Your task to perform on an android device: check data usage Image 0: 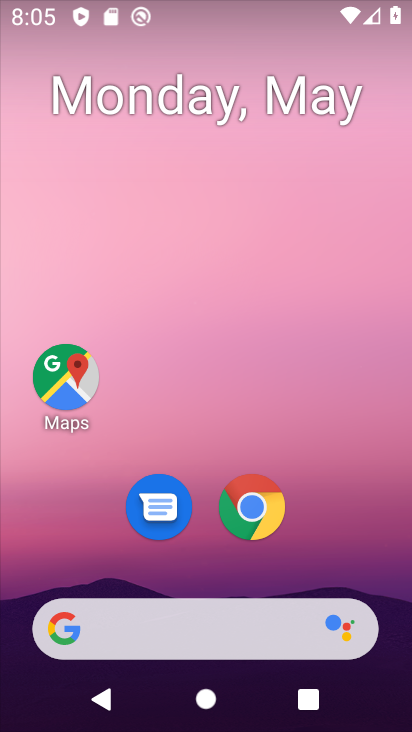
Step 0: drag from (217, 583) to (274, 43)
Your task to perform on an android device: check data usage Image 1: 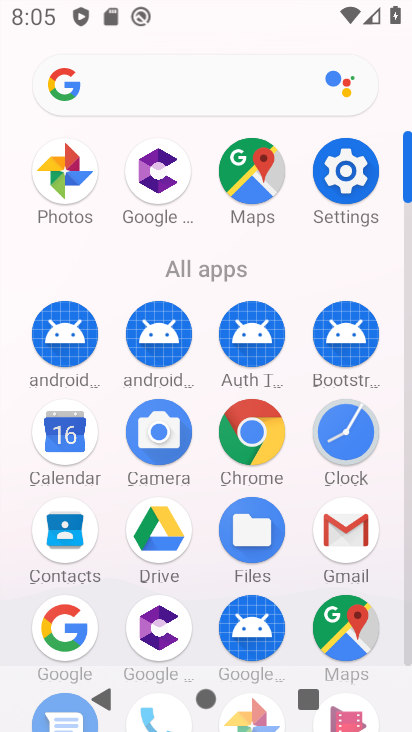
Step 1: click (347, 203)
Your task to perform on an android device: check data usage Image 2: 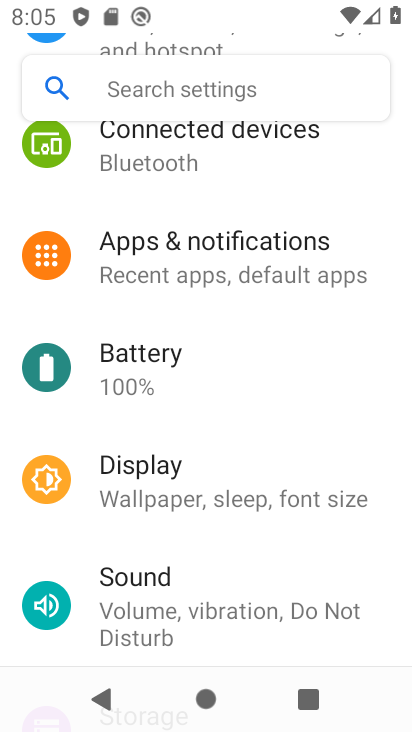
Step 2: drag from (260, 289) to (211, 573)
Your task to perform on an android device: check data usage Image 3: 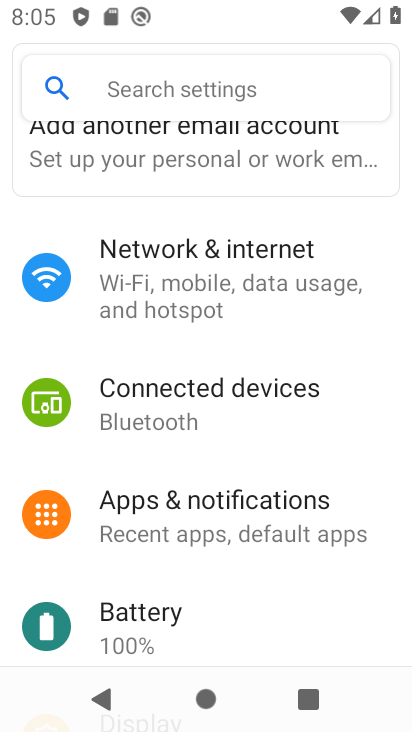
Step 3: click (198, 302)
Your task to perform on an android device: check data usage Image 4: 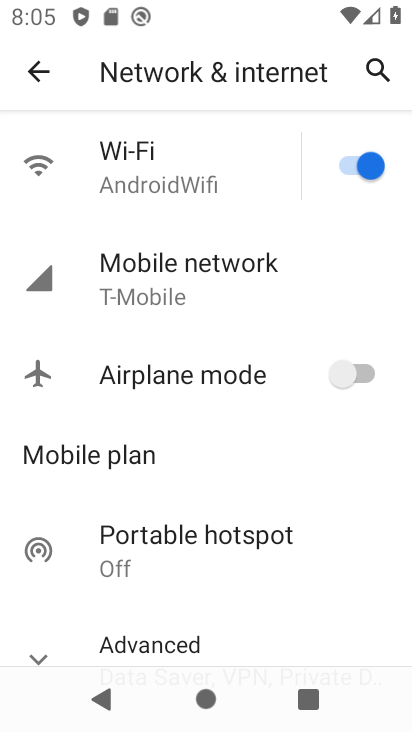
Step 4: click (197, 286)
Your task to perform on an android device: check data usage Image 5: 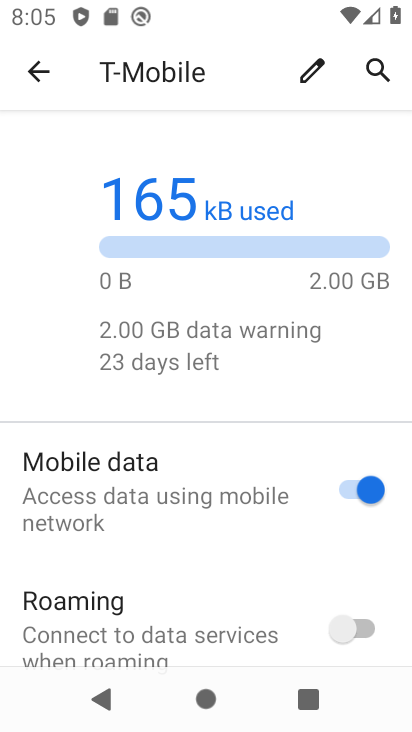
Step 5: drag from (199, 504) to (223, 268)
Your task to perform on an android device: check data usage Image 6: 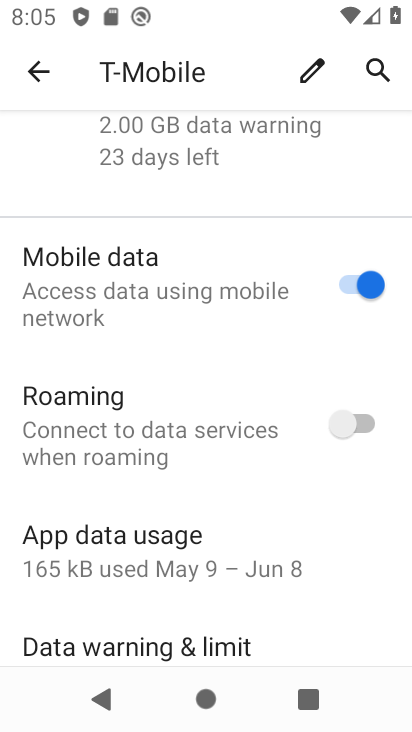
Step 6: click (141, 552)
Your task to perform on an android device: check data usage Image 7: 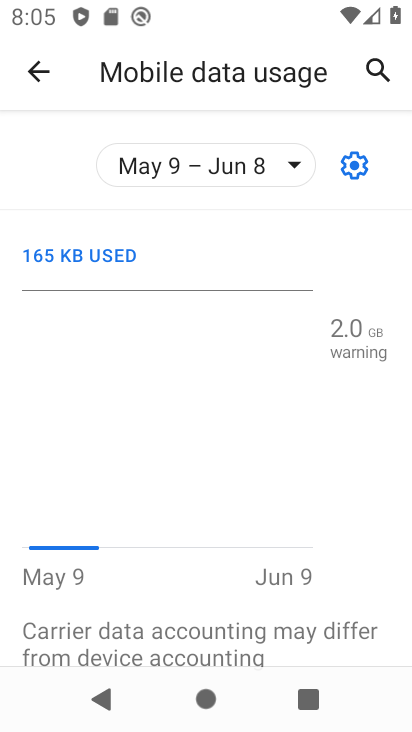
Step 7: task complete